Your task to perform on an android device: Open Android settings Image 0: 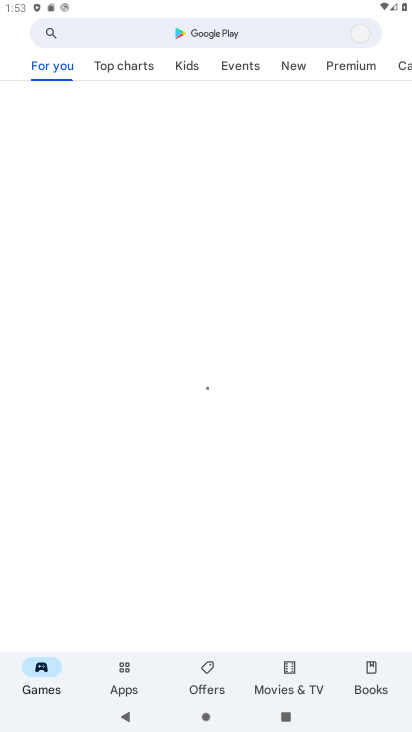
Step 0: press home button
Your task to perform on an android device: Open Android settings Image 1: 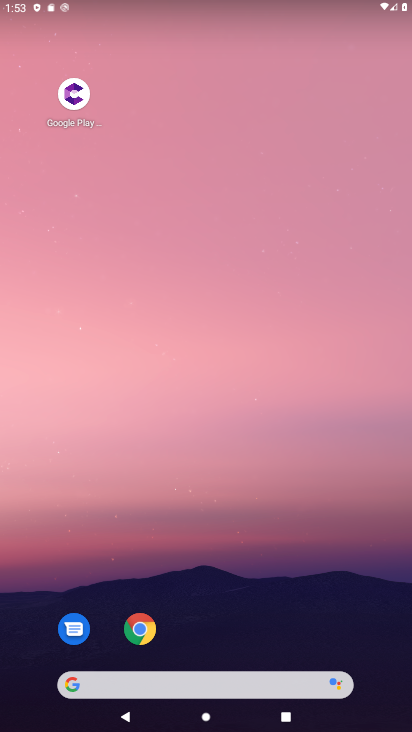
Step 1: drag from (165, 659) to (184, 339)
Your task to perform on an android device: Open Android settings Image 2: 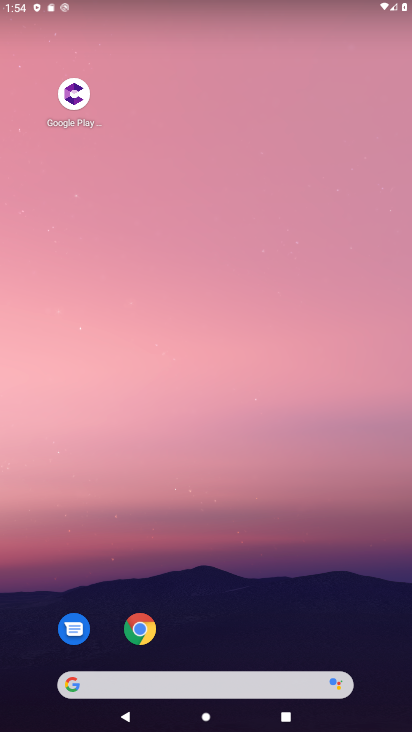
Step 2: drag from (199, 663) to (262, 172)
Your task to perform on an android device: Open Android settings Image 3: 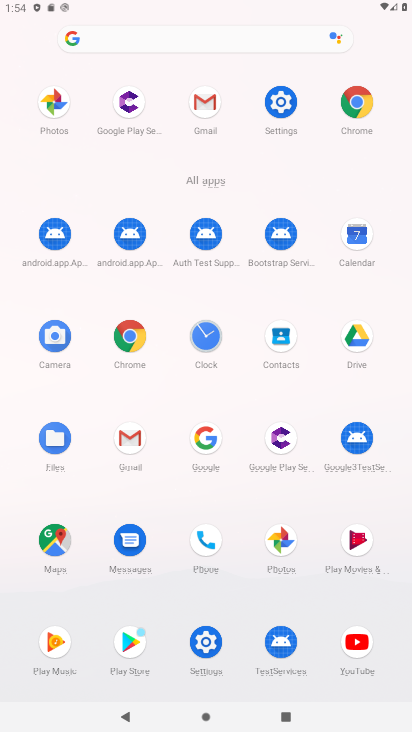
Step 3: click (197, 646)
Your task to perform on an android device: Open Android settings Image 4: 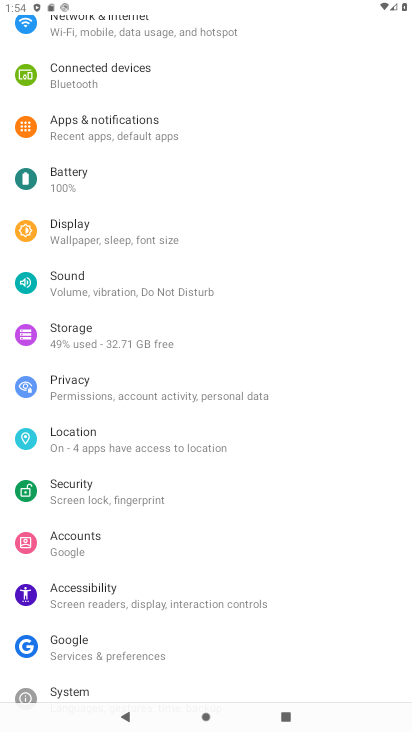
Step 4: task complete